Your task to perform on an android device: Go to Amazon Image 0: 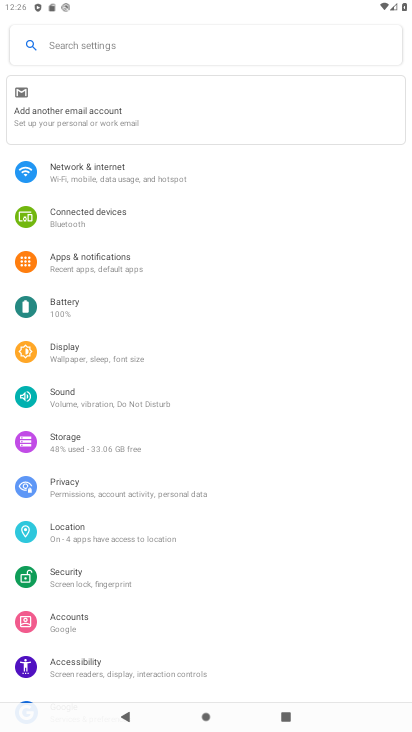
Step 0: press home button
Your task to perform on an android device: Go to Amazon Image 1: 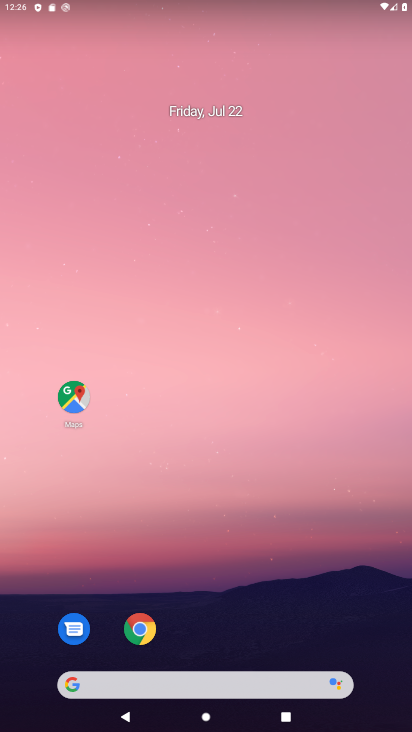
Step 1: click (139, 626)
Your task to perform on an android device: Go to Amazon Image 2: 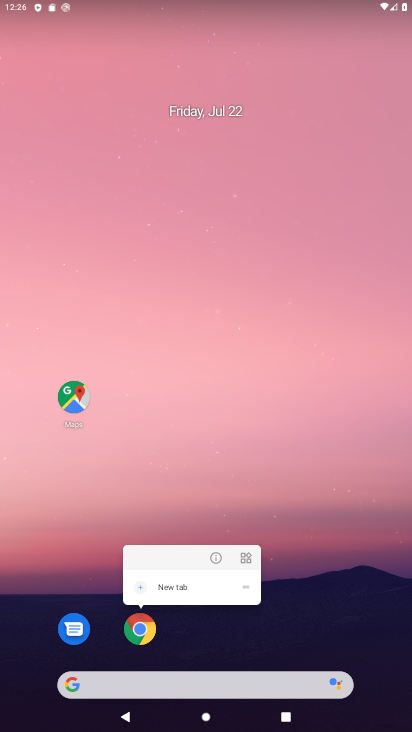
Step 2: click (139, 626)
Your task to perform on an android device: Go to Amazon Image 3: 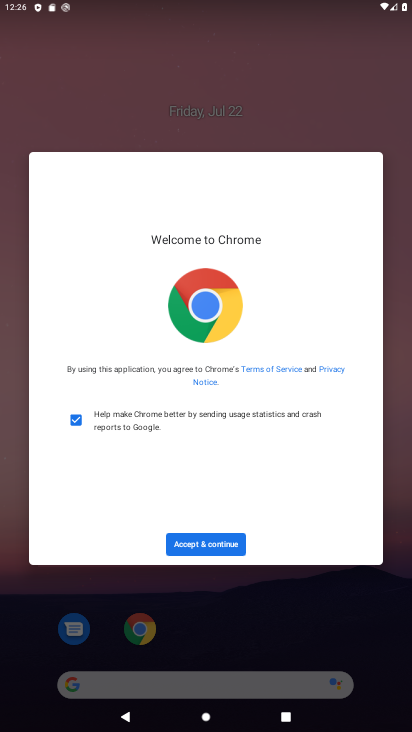
Step 3: click (235, 544)
Your task to perform on an android device: Go to Amazon Image 4: 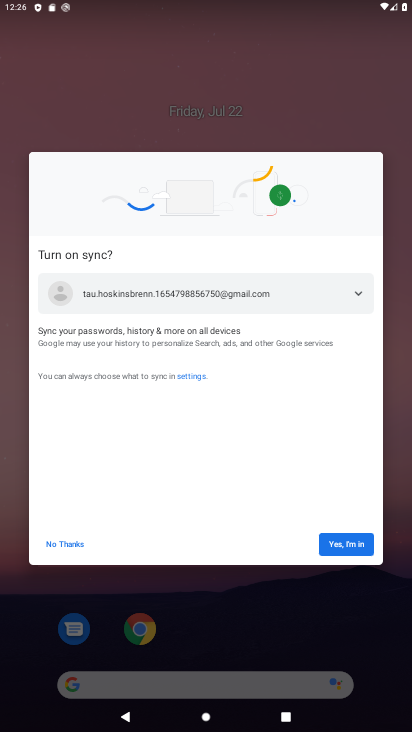
Step 4: click (331, 545)
Your task to perform on an android device: Go to Amazon Image 5: 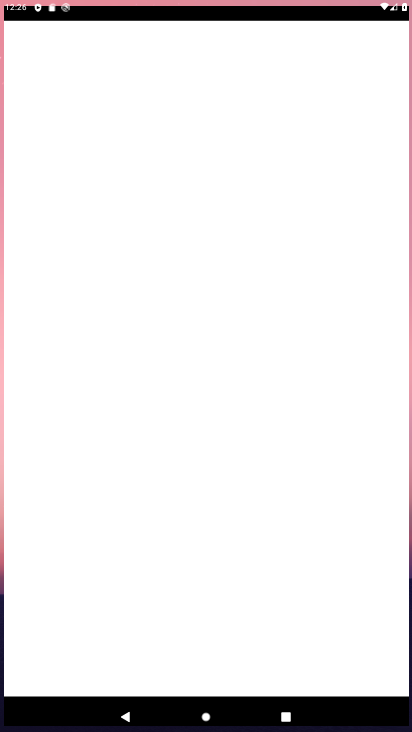
Step 5: click (331, 545)
Your task to perform on an android device: Go to Amazon Image 6: 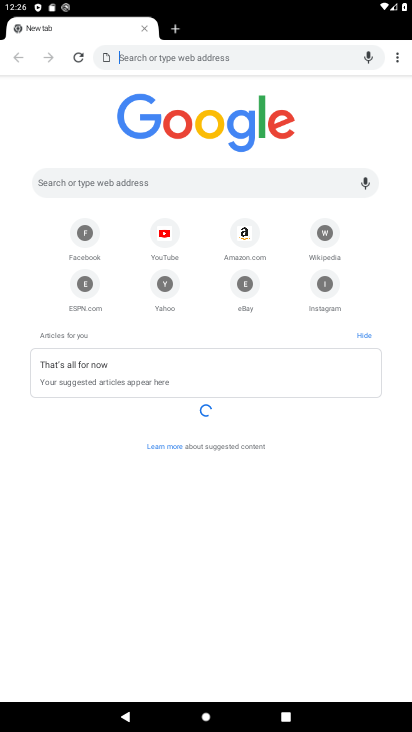
Step 6: click (248, 237)
Your task to perform on an android device: Go to Amazon Image 7: 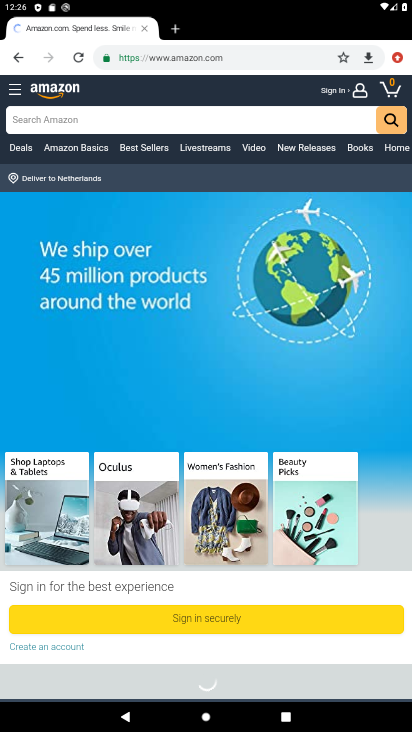
Step 7: task complete